Your task to perform on an android device: empty trash in google photos Image 0: 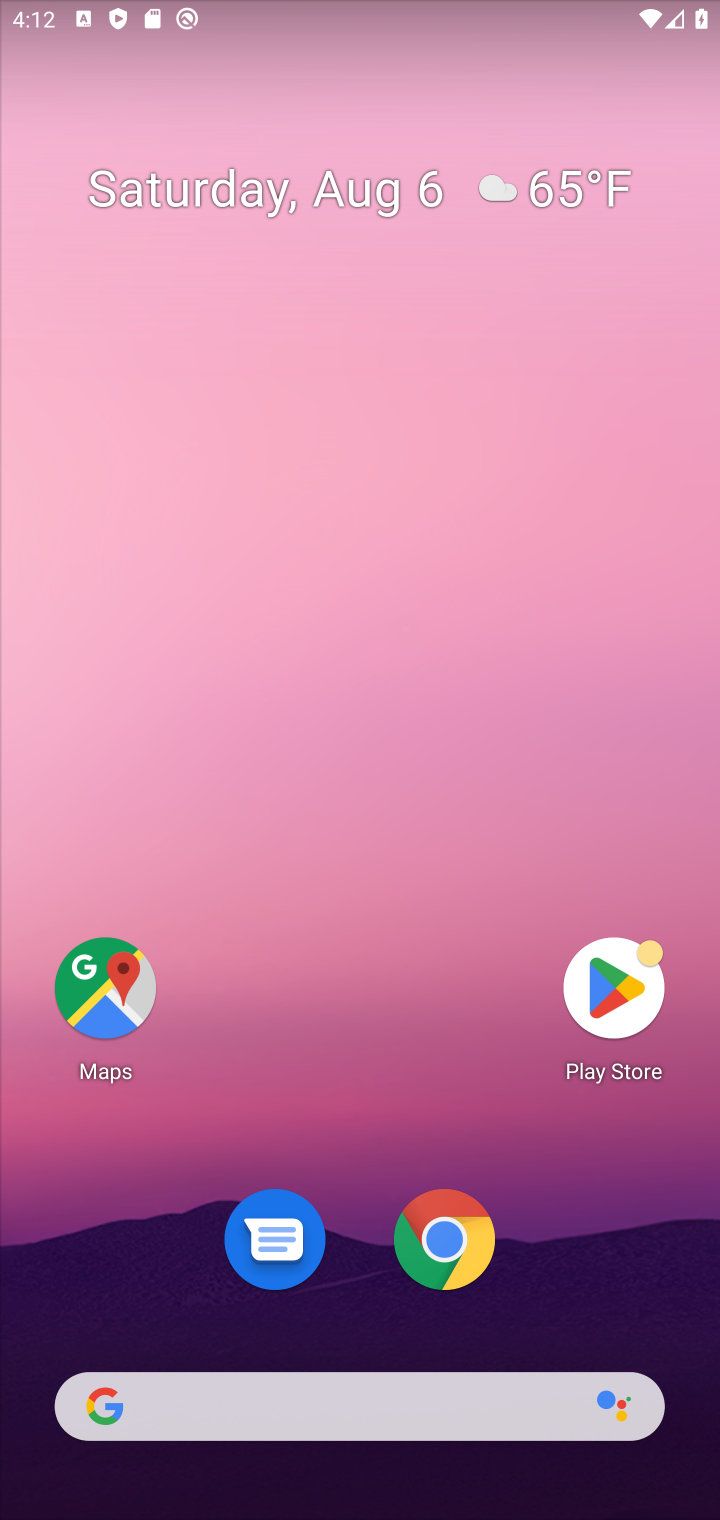
Step 0: drag from (498, 1191) to (579, 292)
Your task to perform on an android device: empty trash in google photos Image 1: 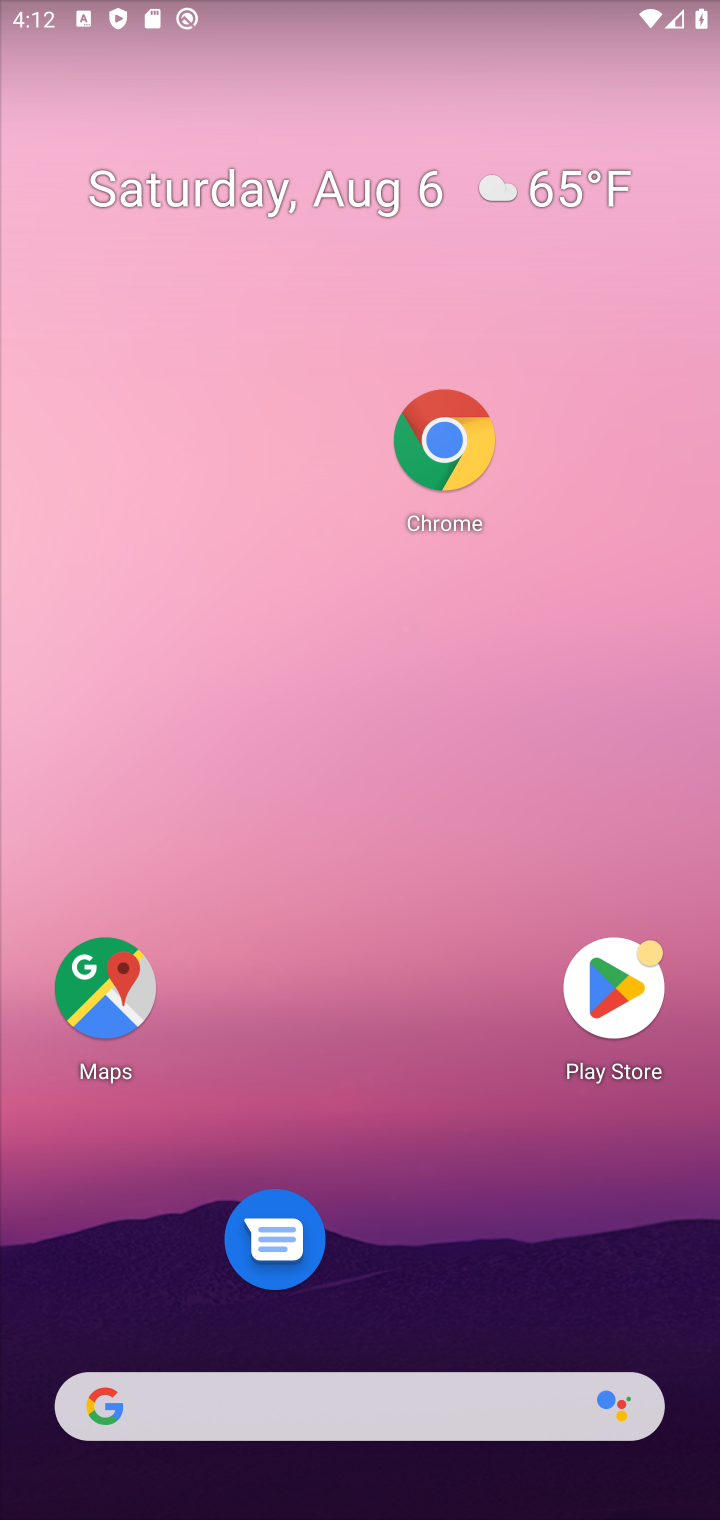
Step 1: drag from (406, 1388) to (475, 86)
Your task to perform on an android device: empty trash in google photos Image 2: 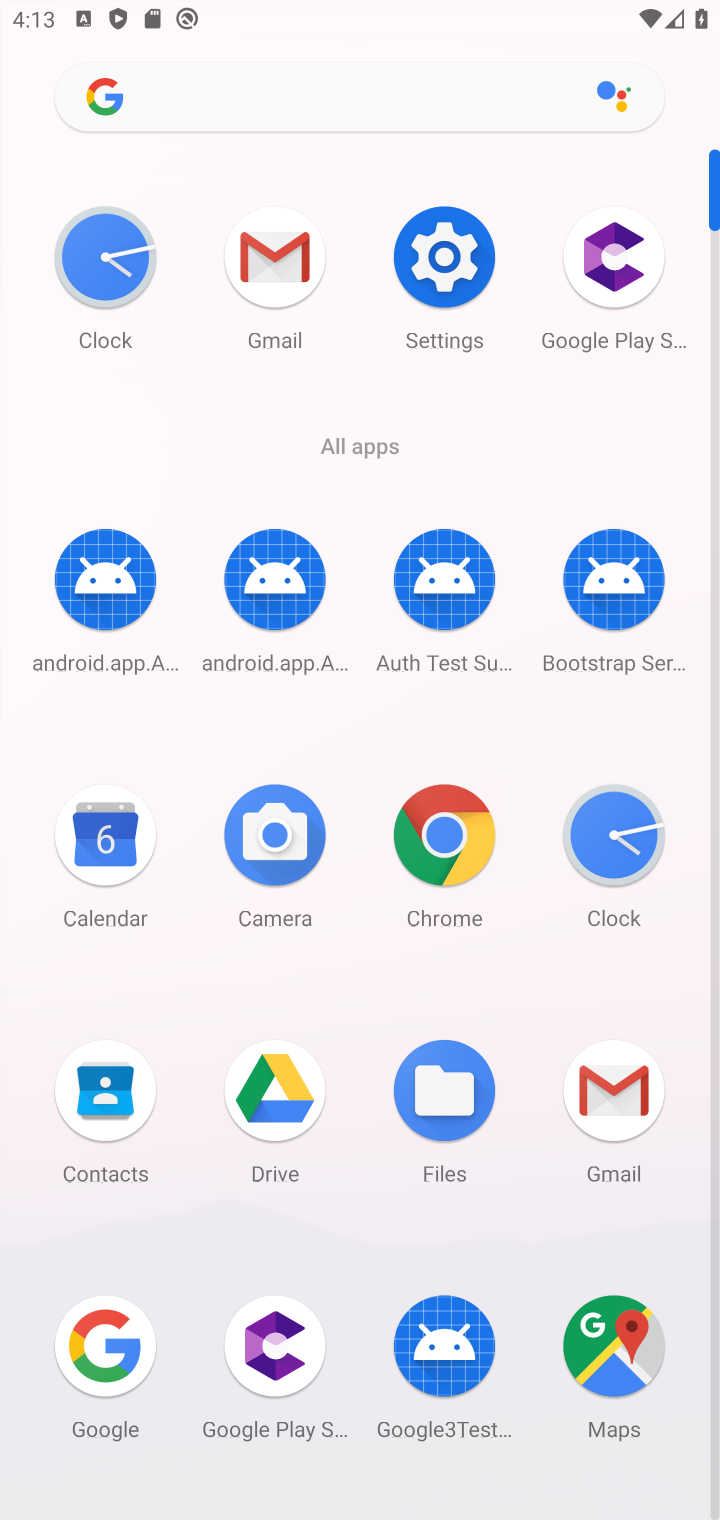
Step 2: drag from (328, 1228) to (280, 513)
Your task to perform on an android device: empty trash in google photos Image 3: 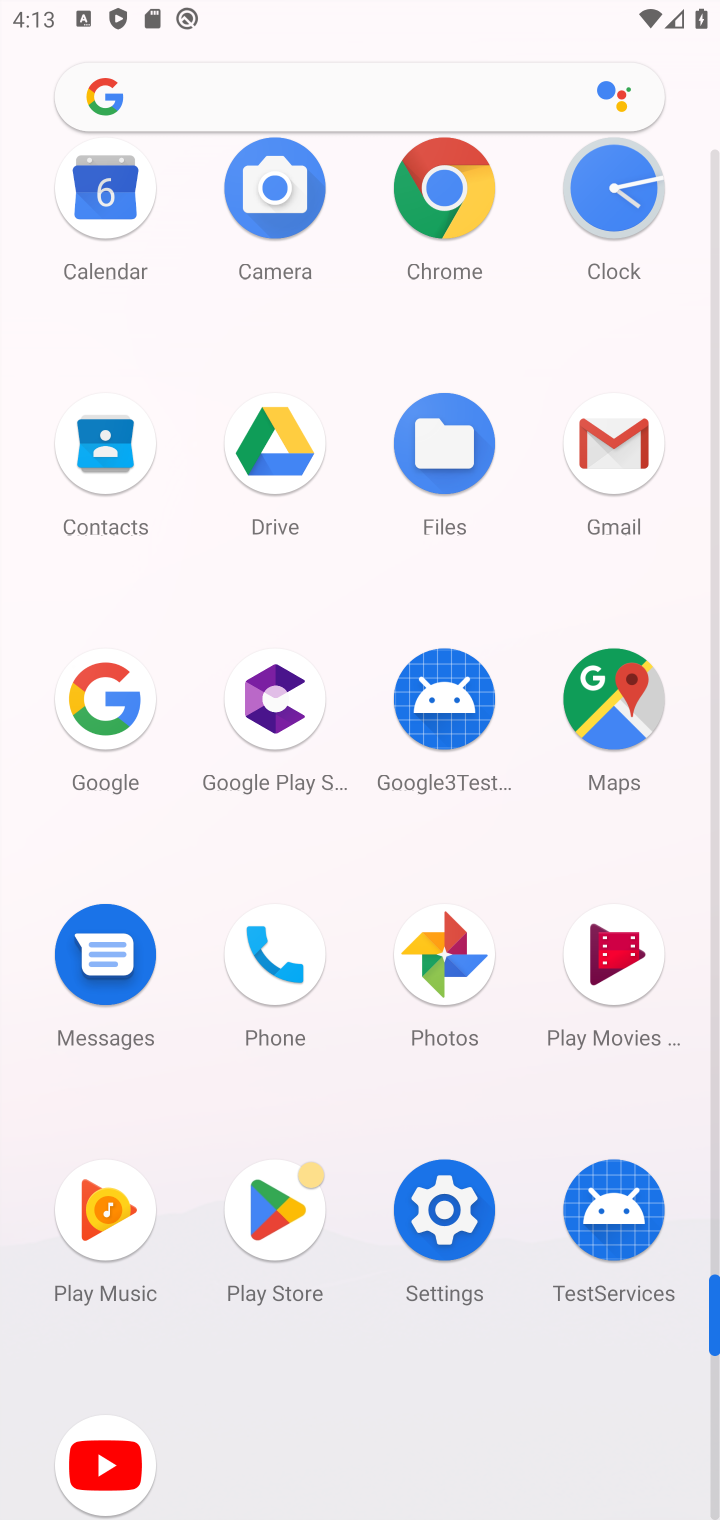
Step 3: click (450, 948)
Your task to perform on an android device: empty trash in google photos Image 4: 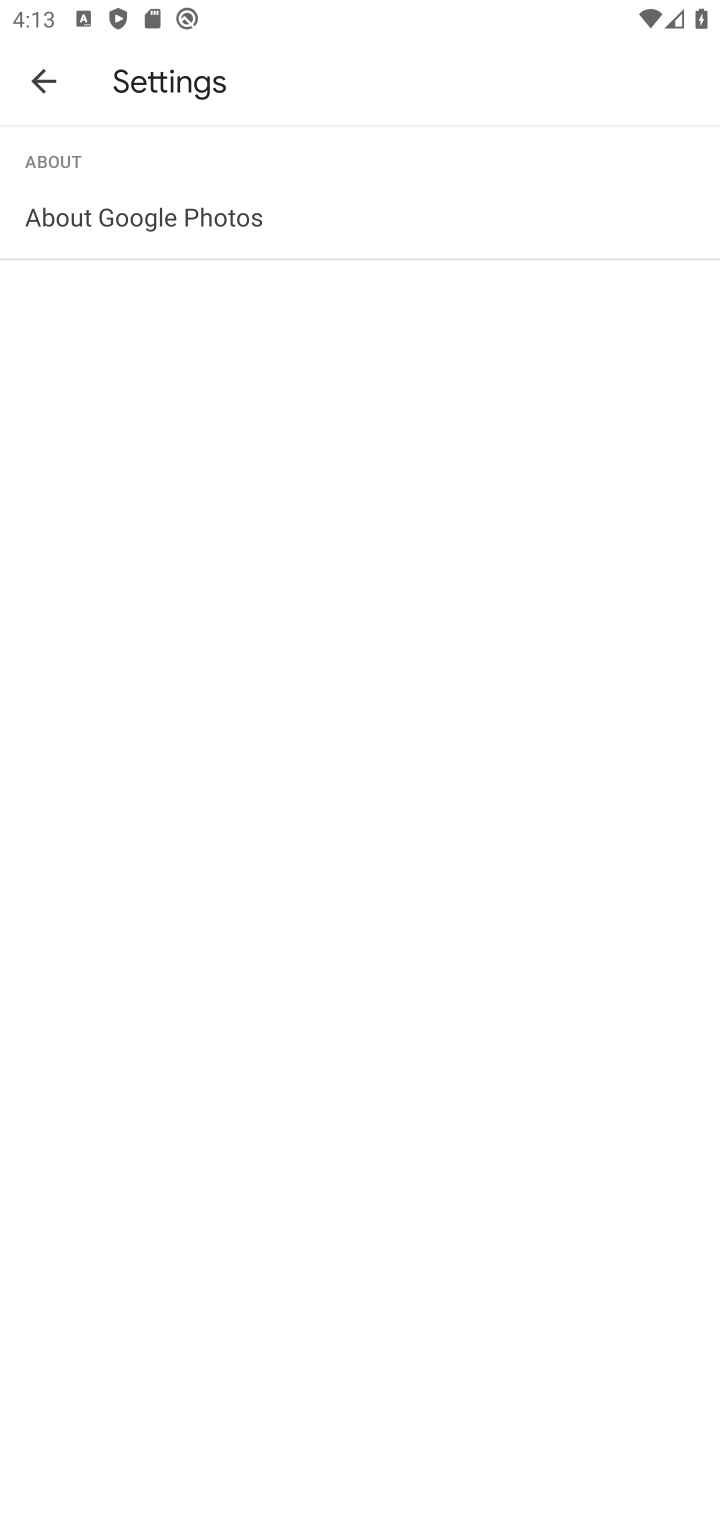
Step 4: press back button
Your task to perform on an android device: empty trash in google photos Image 5: 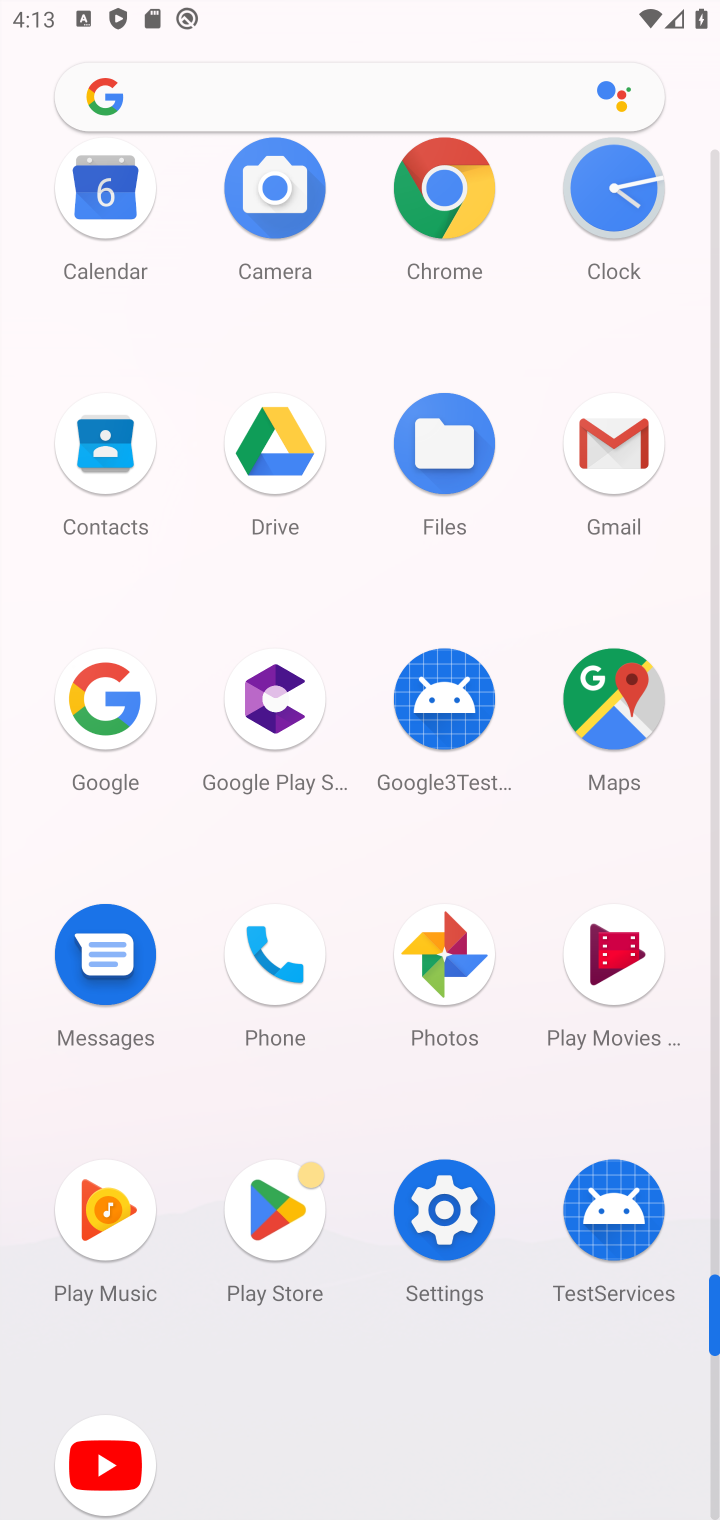
Step 5: click (456, 958)
Your task to perform on an android device: empty trash in google photos Image 6: 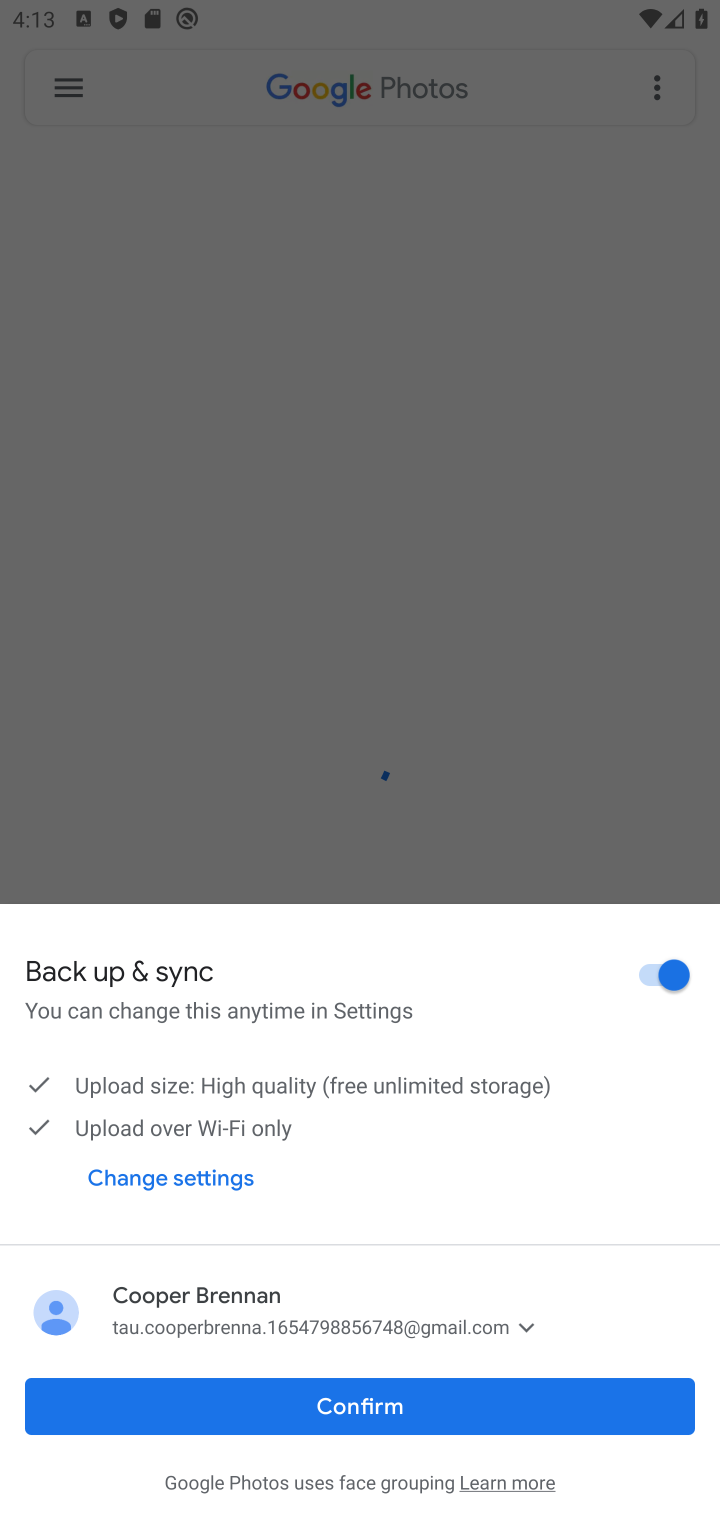
Step 6: click (348, 1395)
Your task to perform on an android device: empty trash in google photos Image 7: 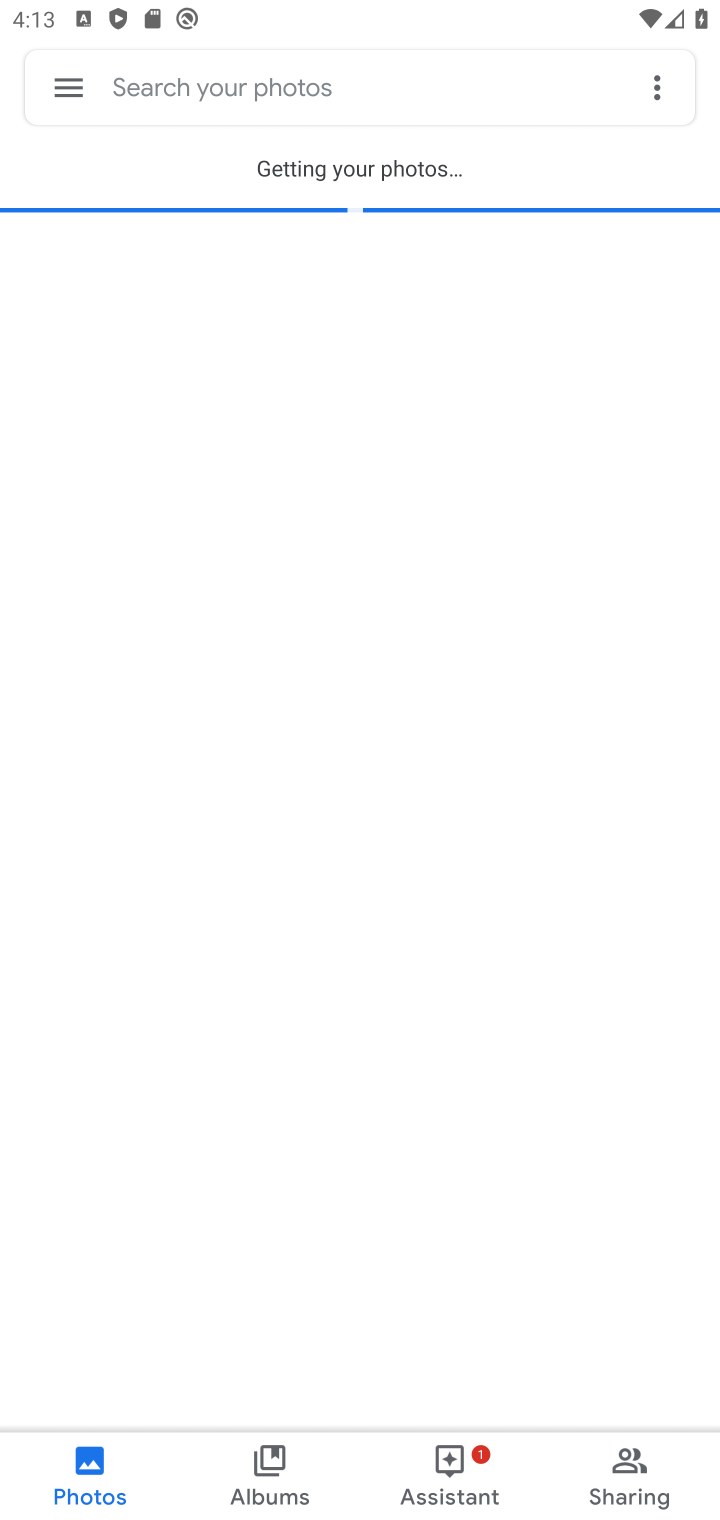
Step 7: click (67, 72)
Your task to perform on an android device: empty trash in google photos Image 8: 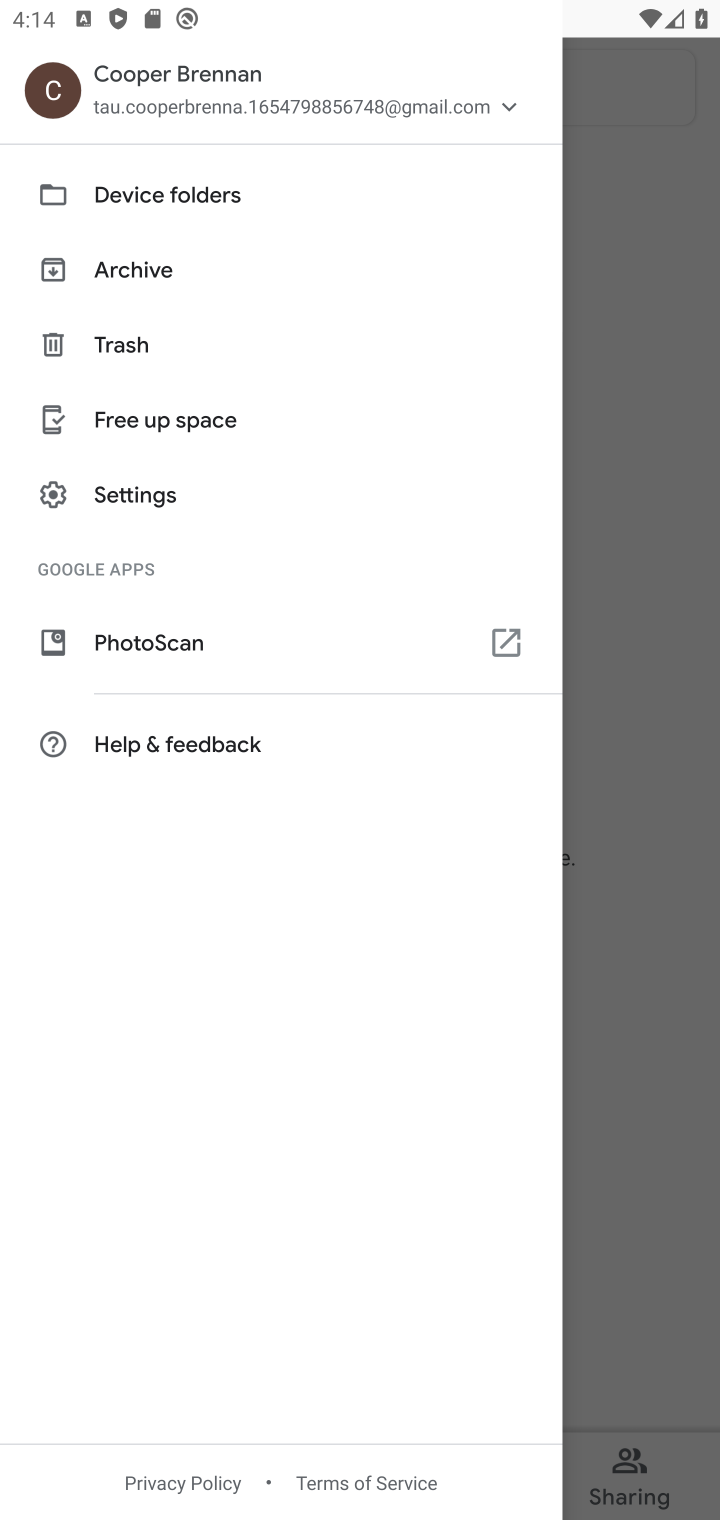
Step 8: click (129, 326)
Your task to perform on an android device: empty trash in google photos Image 9: 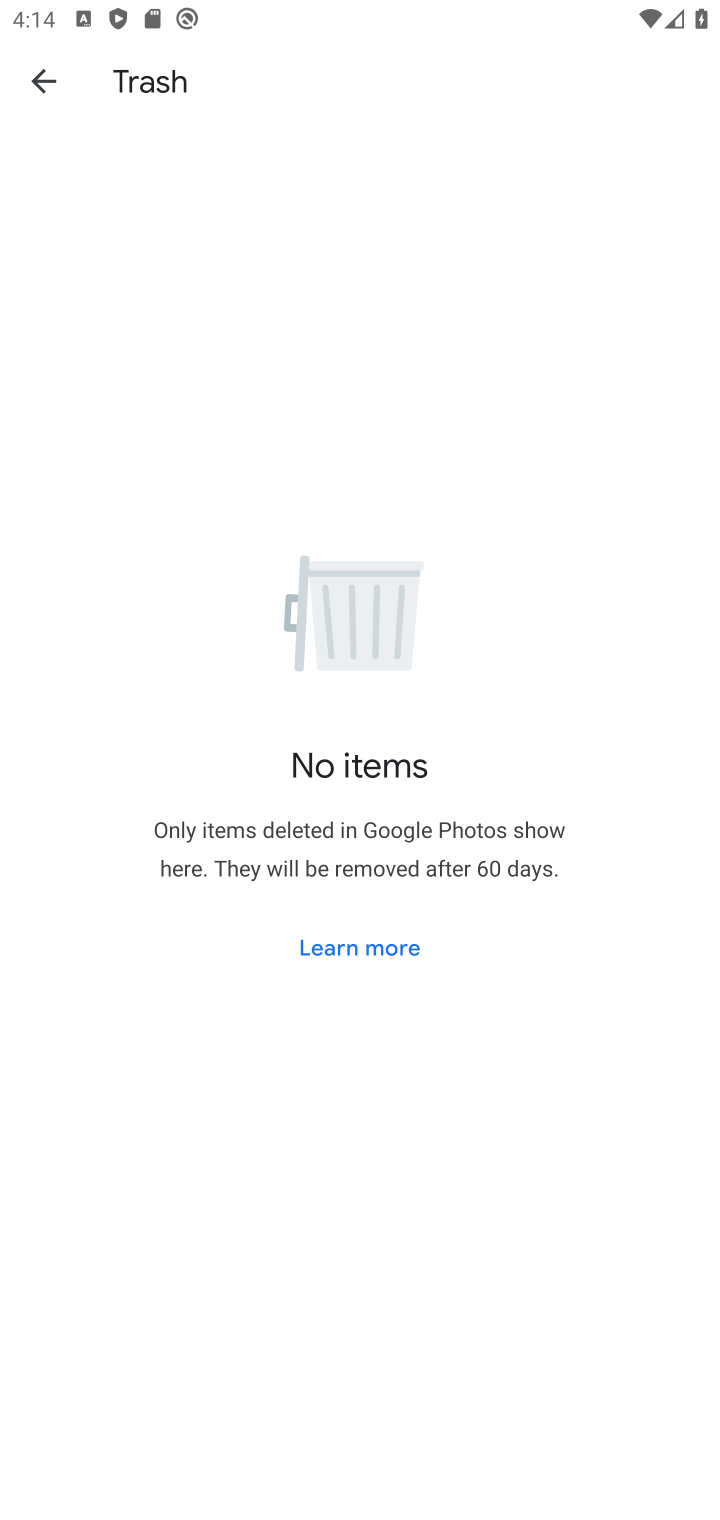
Step 9: task complete